Your task to perform on an android device: turn on data saver in the chrome app Image 0: 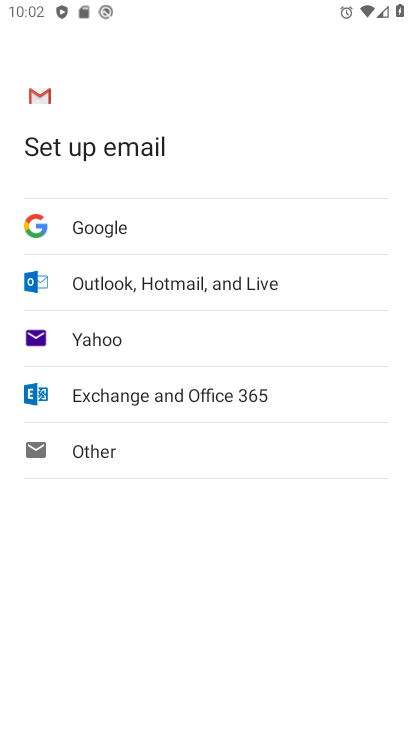
Step 0: press home button
Your task to perform on an android device: turn on data saver in the chrome app Image 1: 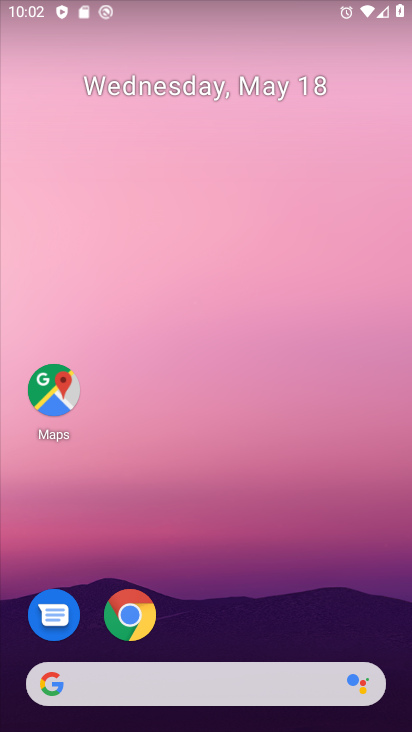
Step 1: click (136, 623)
Your task to perform on an android device: turn on data saver in the chrome app Image 2: 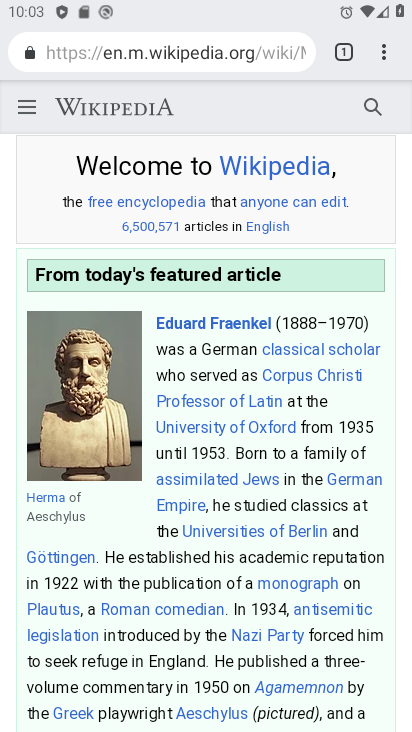
Step 2: click (386, 45)
Your task to perform on an android device: turn on data saver in the chrome app Image 3: 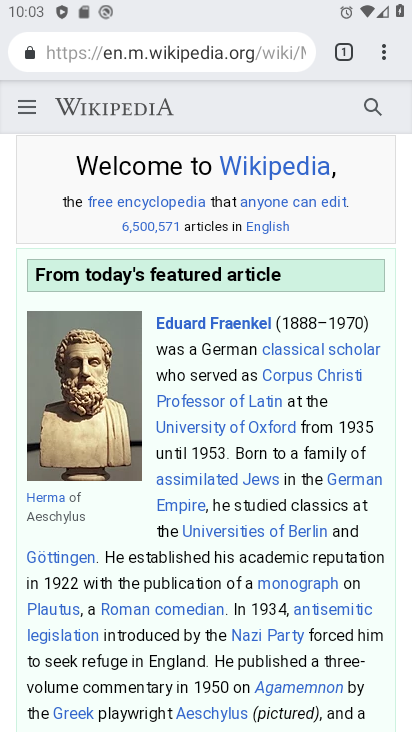
Step 3: click (382, 47)
Your task to perform on an android device: turn on data saver in the chrome app Image 4: 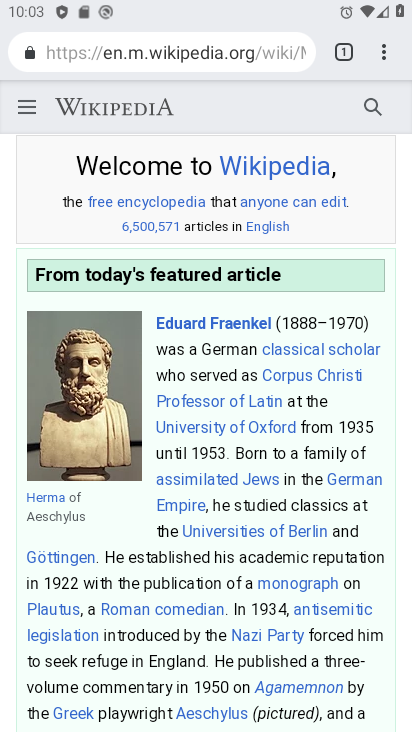
Step 4: task complete